Your task to perform on an android device: Turn off the flashlight Image 0: 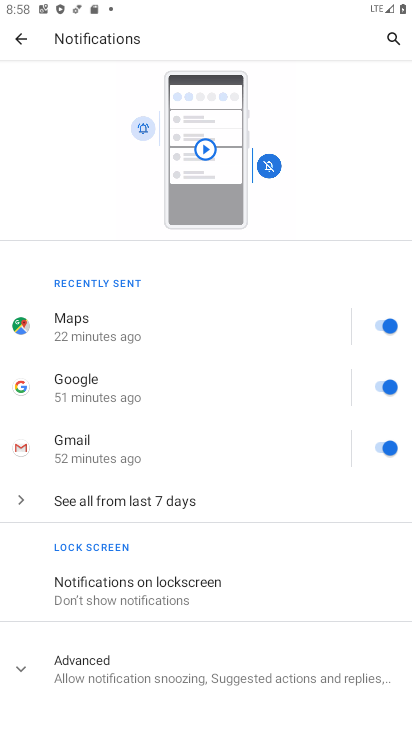
Step 0: press home button
Your task to perform on an android device: Turn off the flashlight Image 1: 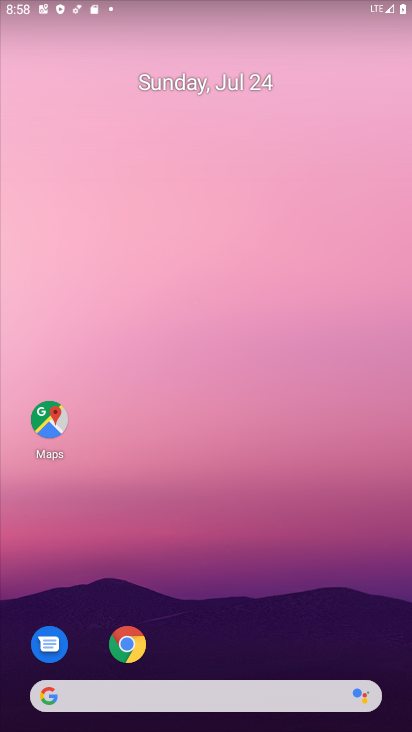
Step 1: drag from (2, 497) to (263, 85)
Your task to perform on an android device: Turn off the flashlight Image 2: 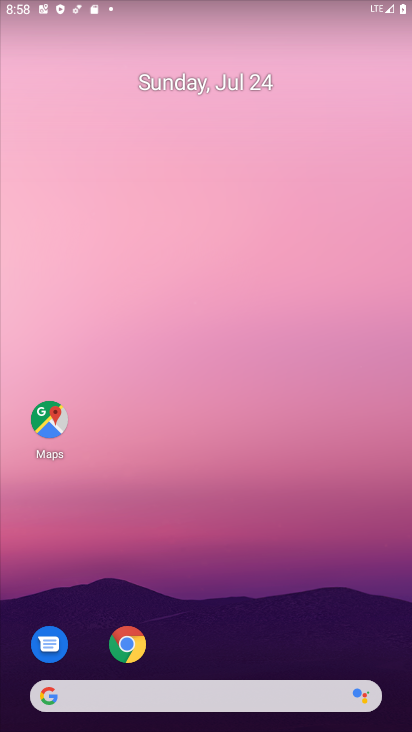
Step 2: press home button
Your task to perform on an android device: Turn off the flashlight Image 3: 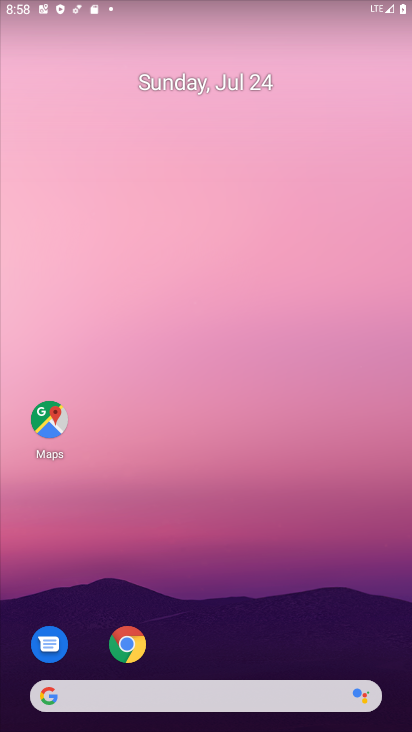
Step 3: drag from (37, 613) to (245, 118)
Your task to perform on an android device: Turn off the flashlight Image 4: 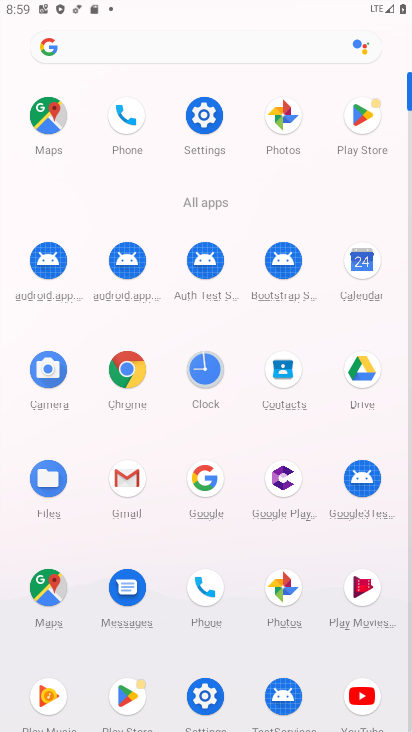
Step 4: click (194, 124)
Your task to perform on an android device: Turn off the flashlight Image 5: 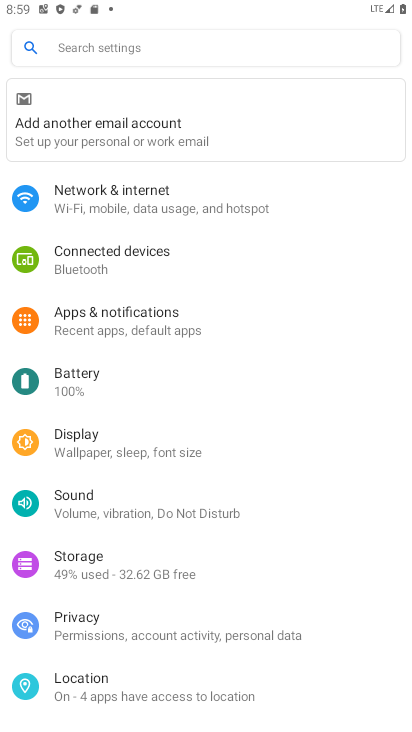
Step 5: task complete